Your task to perform on an android device: change timer sound Image 0: 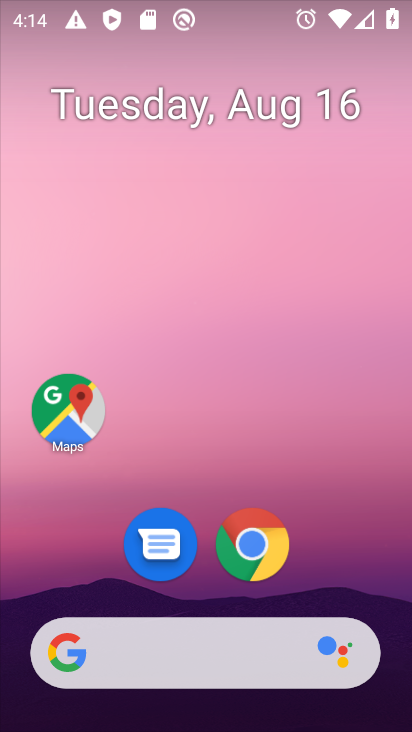
Step 0: drag from (213, 472) to (223, 95)
Your task to perform on an android device: change timer sound Image 1: 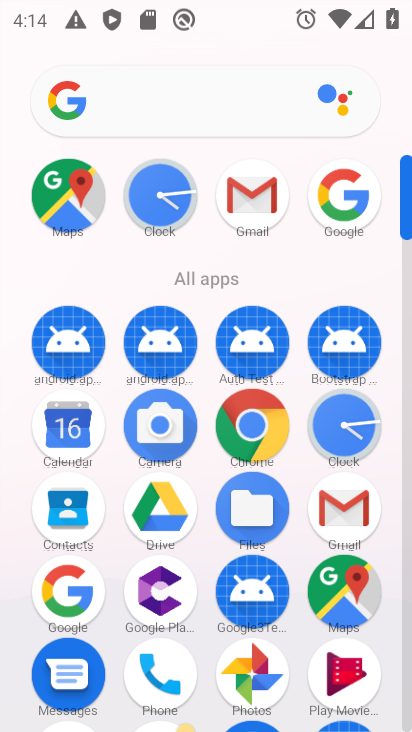
Step 1: drag from (197, 475) to (205, 177)
Your task to perform on an android device: change timer sound Image 2: 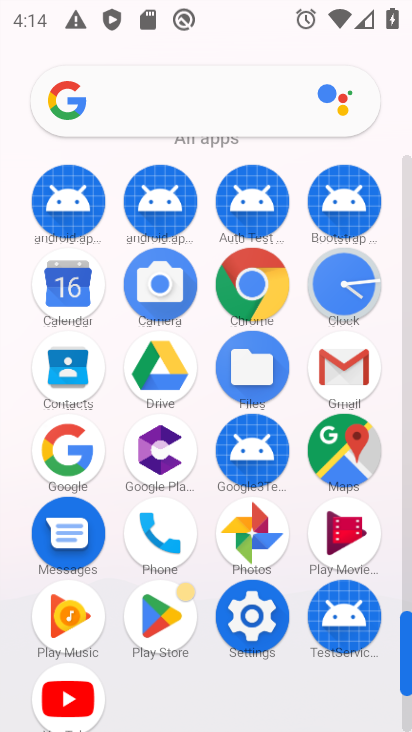
Step 2: drag from (205, 177) to (207, 347)
Your task to perform on an android device: change timer sound Image 3: 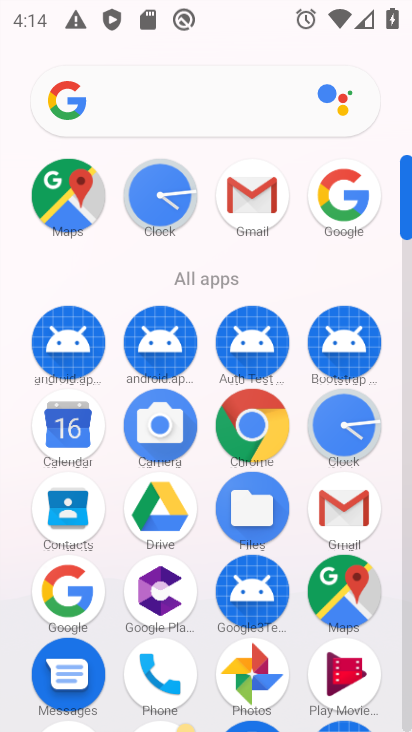
Step 3: click (154, 221)
Your task to perform on an android device: change timer sound Image 4: 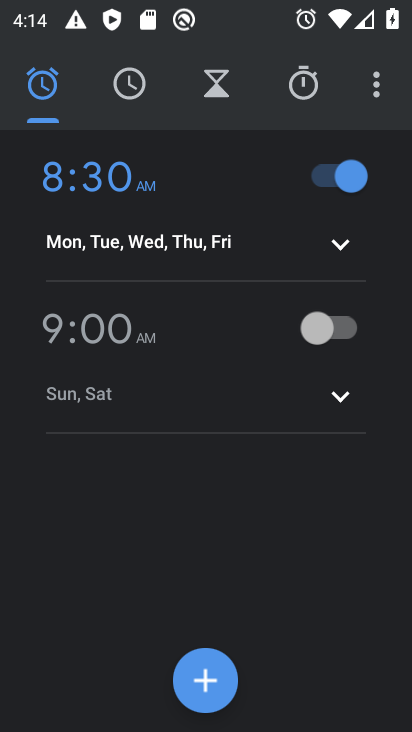
Step 4: click (375, 80)
Your task to perform on an android device: change timer sound Image 5: 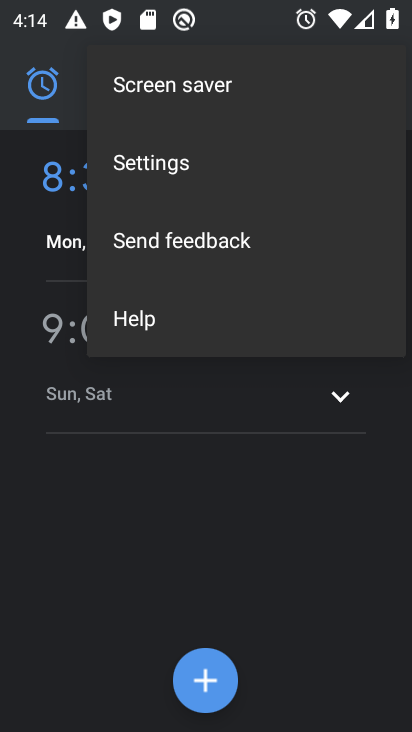
Step 5: click (210, 168)
Your task to perform on an android device: change timer sound Image 6: 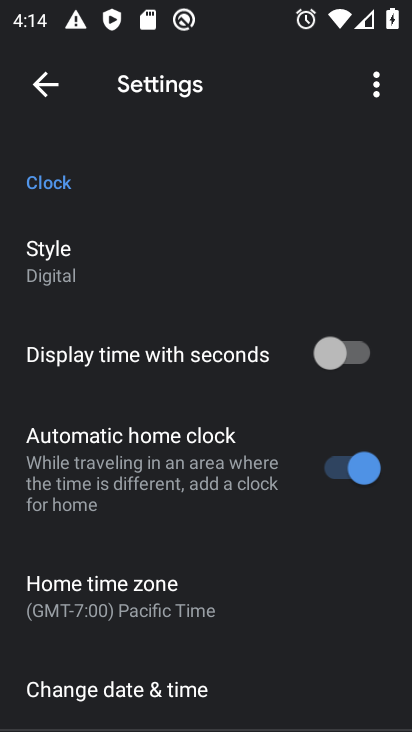
Step 6: drag from (198, 616) to (200, 234)
Your task to perform on an android device: change timer sound Image 7: 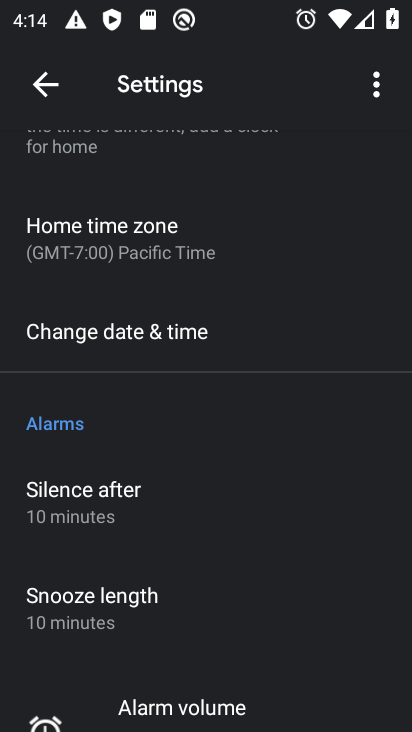
Step 7: drag from (183, 559) to (183, 270)
Your task to perform on an android device: change timer sound Image 8: 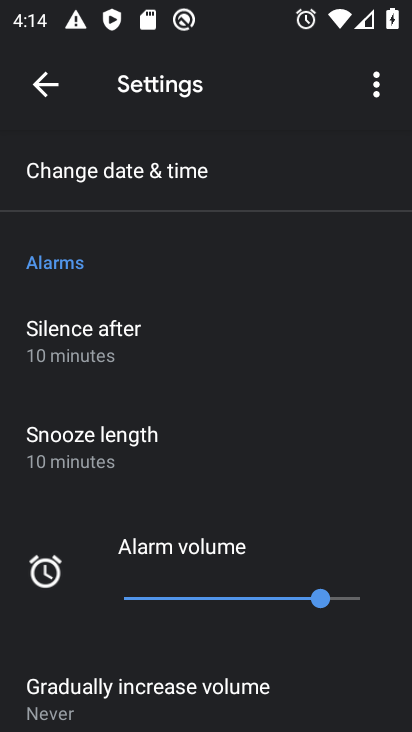
Step 8: drag from (165, 244) to (199, 531)
Your task to perform on an android device: change timer sound Image 9: 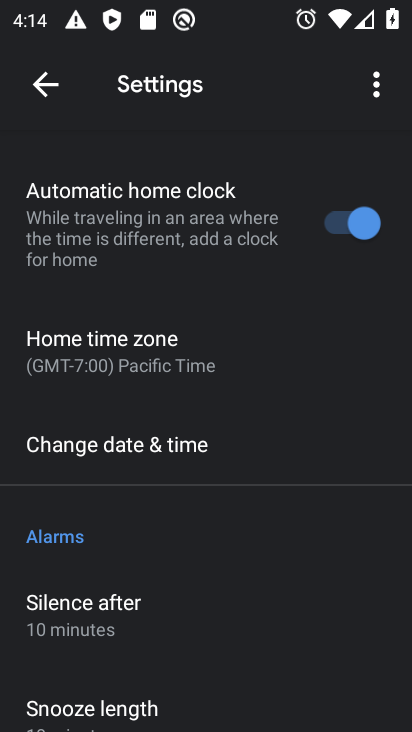
Step 9: drag from (170, 298) to (206, 578)
Your task to perform on an android device: change timer sound Image 10: 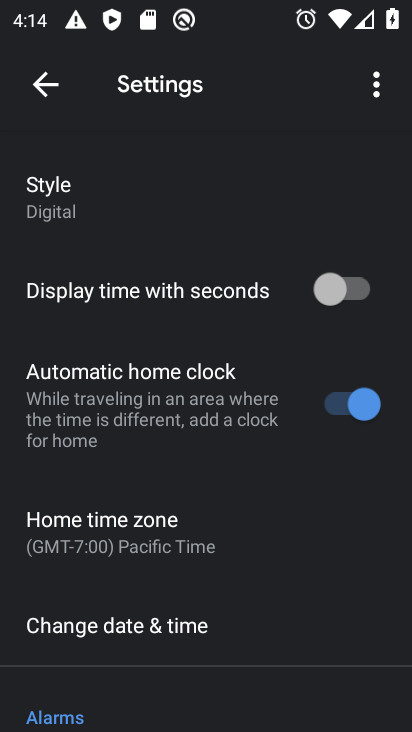
Step 10: drag from (167, 557) to (172, 252)
Your task to perform on an android device: change timer sound Image 11: 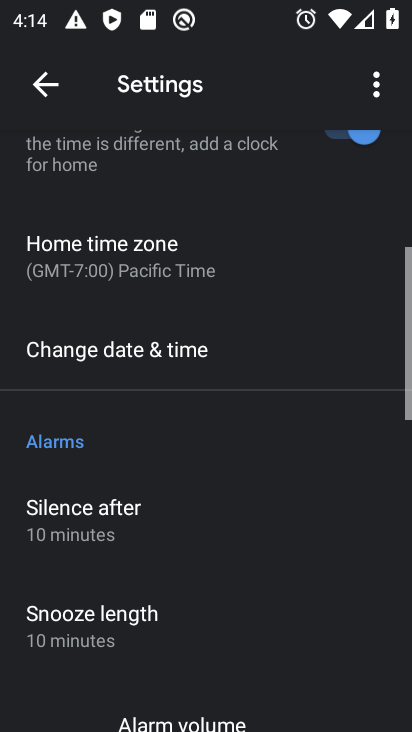
Step 11: drag from (178, 474) to (178, 243)
Your task to perform on an android device: change timer sound Image 12: 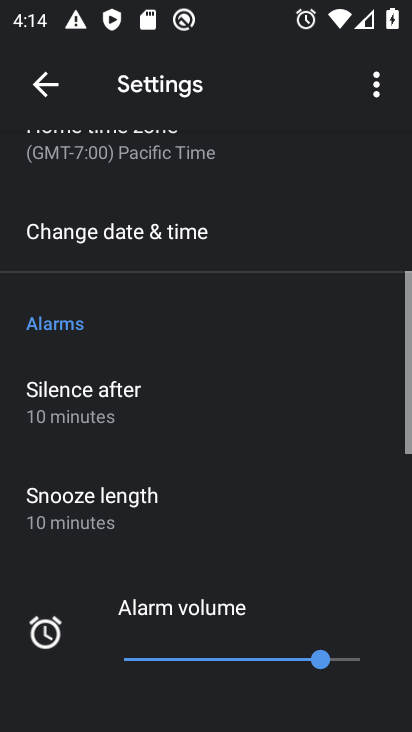
Step 12: drag from (178, 541) to (183, 231)
Your task to perform on an android device: change timer sound Image 13: 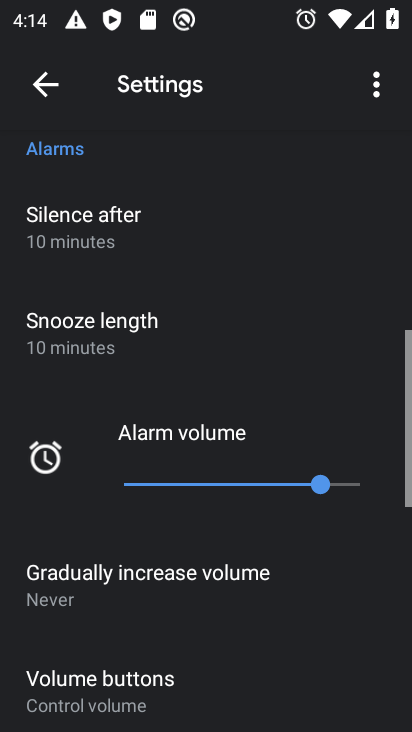
Step 13: drag from (215, 560) to (201, 238)
Your task to perform on an android device: change timer sound Image 14: 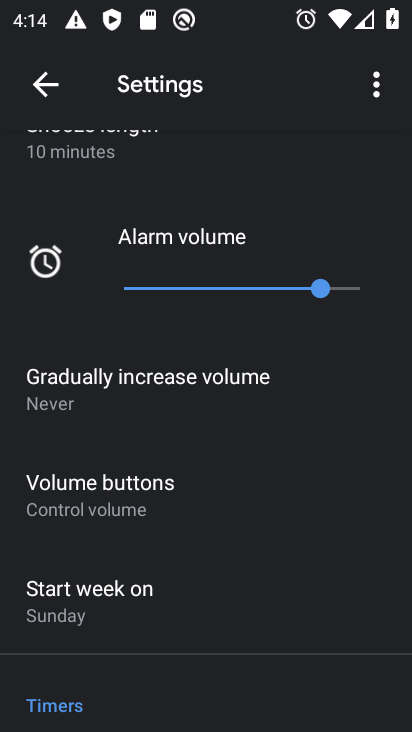
Step 14: drag from (186, 646) to (186, 314)
Your task to perform on an android device: change timer sound Image 15: 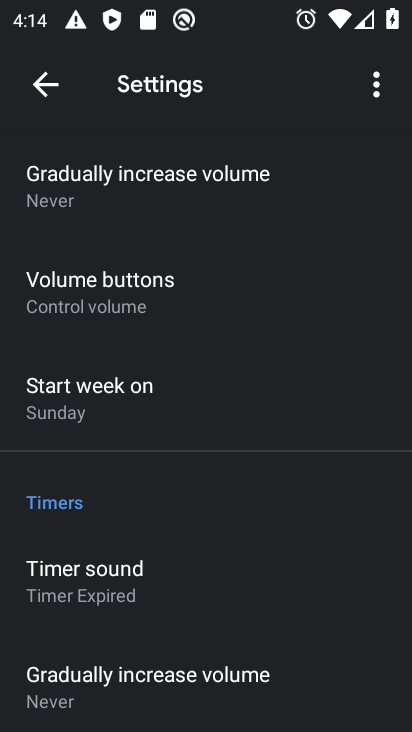
Step 15: click (146, 567)
Your task to perform on an android device: change timer sound Image 16: 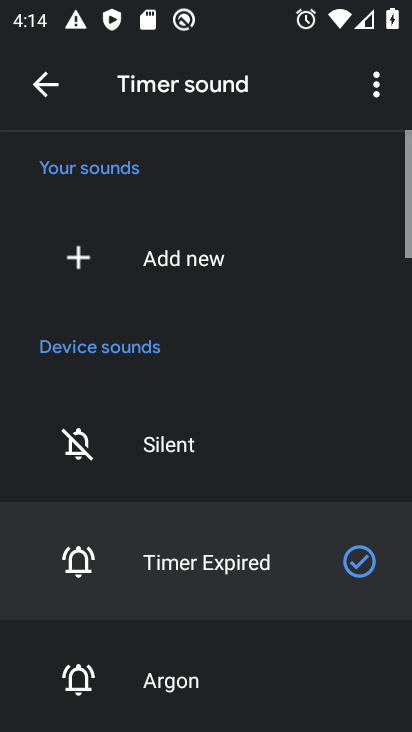
Step 16: drag from (200, 607) to (188, 238)
Your task to perform on an android device: change timer sound Image 17: 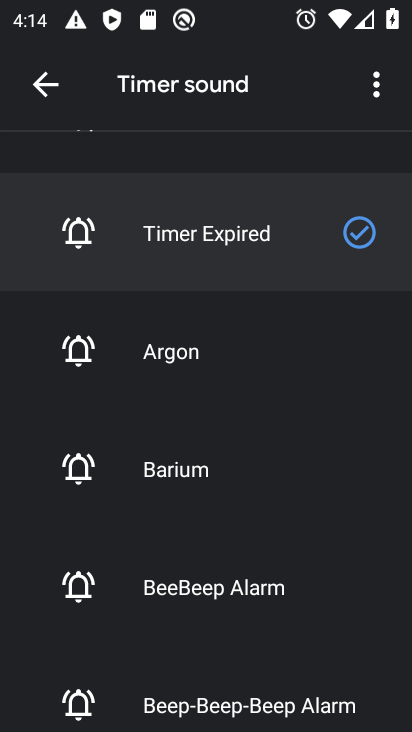
Step 17: click (183, 585)
Your task to perform on an android device: change timer sound Image 18: 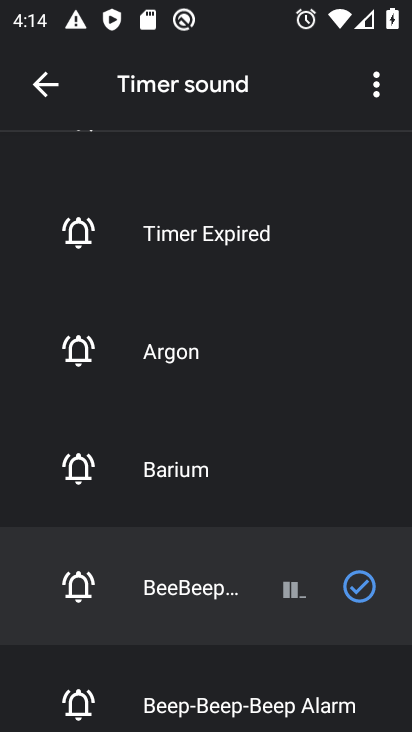
Step 18: task complete